Your task to perform on an android device: toggle wifi Image 0: 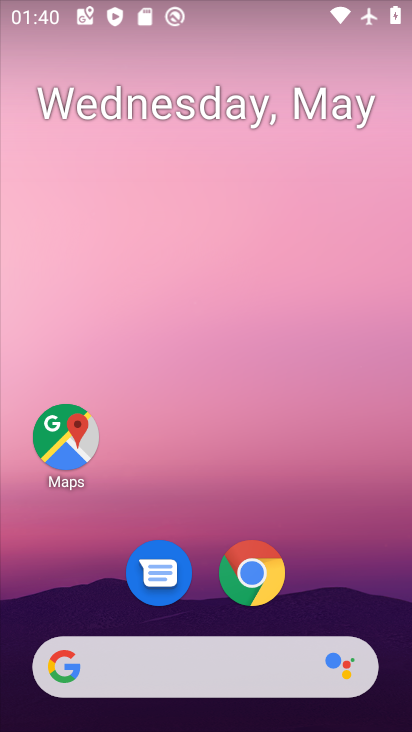
Step 0: drag from (314, 600) to (320, 244)
Your task to perform on an android device: toggle wifi Image 1: 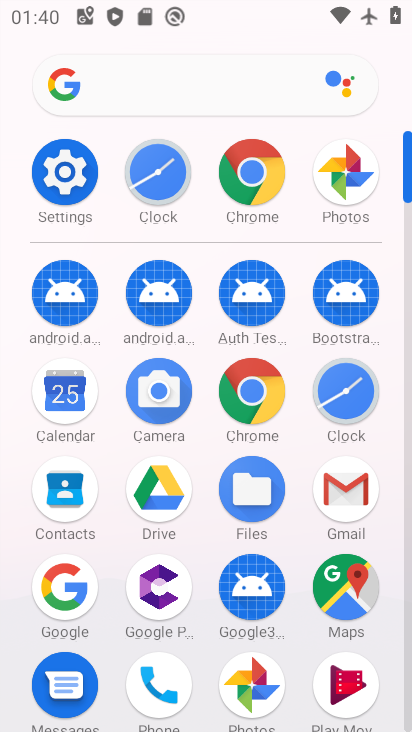
Step 1: click (74, 177)
Your task to perform on an android device: toggle wifi Image 2: 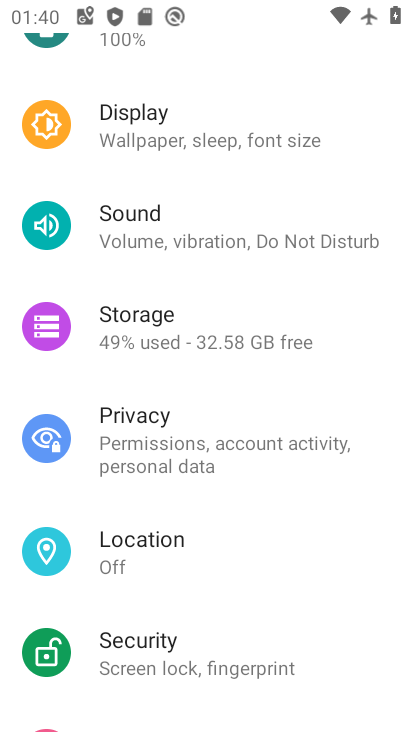
Step 2: drag from (235, 136) to (233, 453)
Your task to perform on an android device: toggle wifi Image 3: 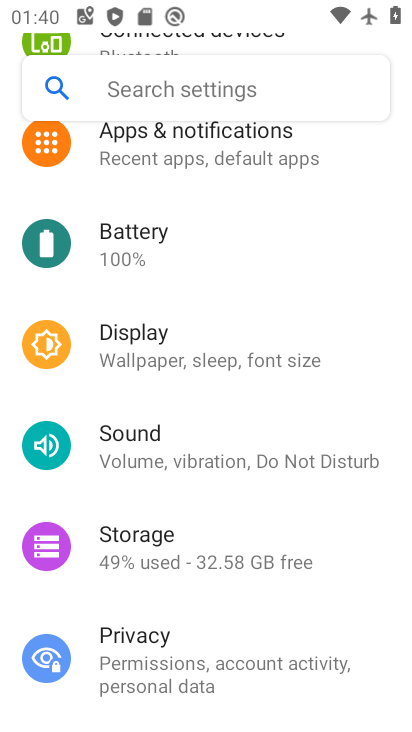
Step 3: drag from (195, 186) to (182, 612)
Your task to perform on an android device: toggle wifi Image 4: 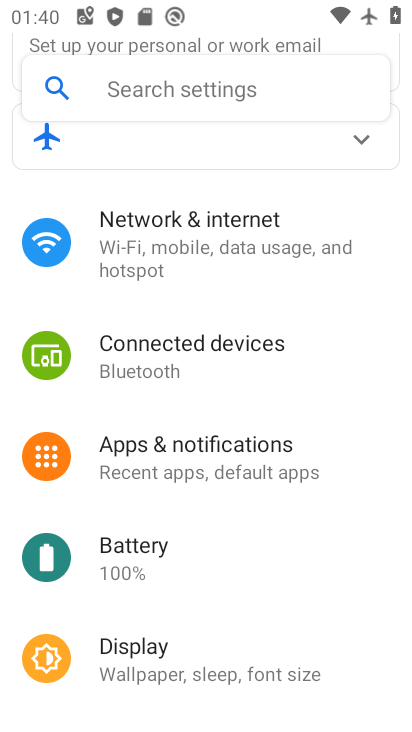
Step 4: click (206, 222)
Your task to perform on an android device: toggle wifi Image 5: 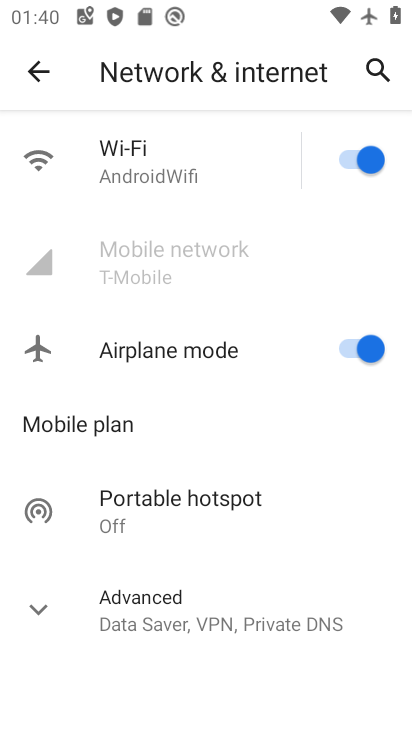
Step 5: click (341, 166)
Your task to perform on an android device: toggle wifi Image 6: 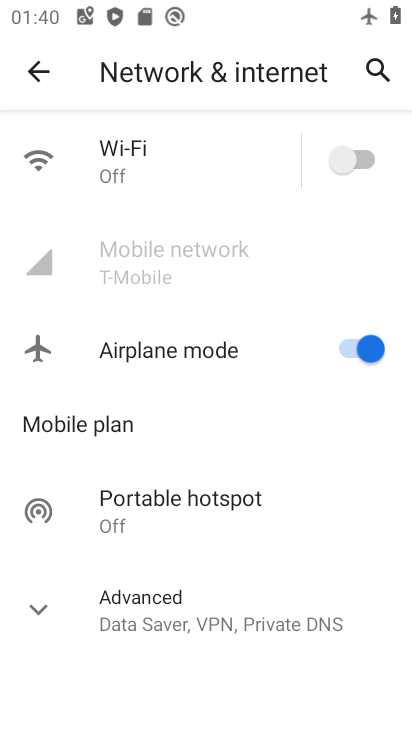
Step 6: task complete